Your task to perform on an android device: turn on the 24-hour format for clock Image 0: 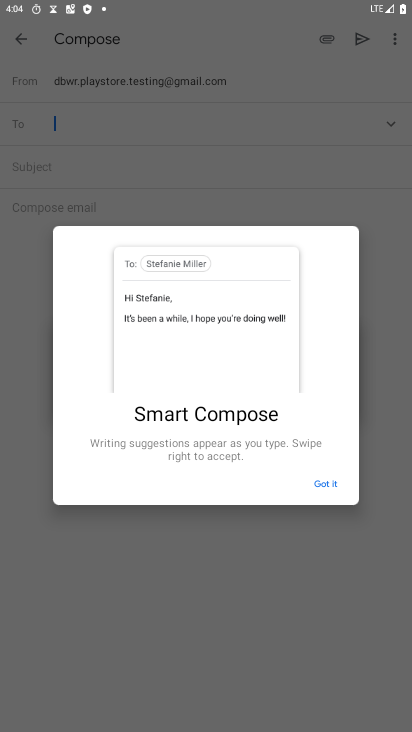
Step 0: press home button
Your task to perform on an android device: turn on the 24-hour format for clock Image 1: 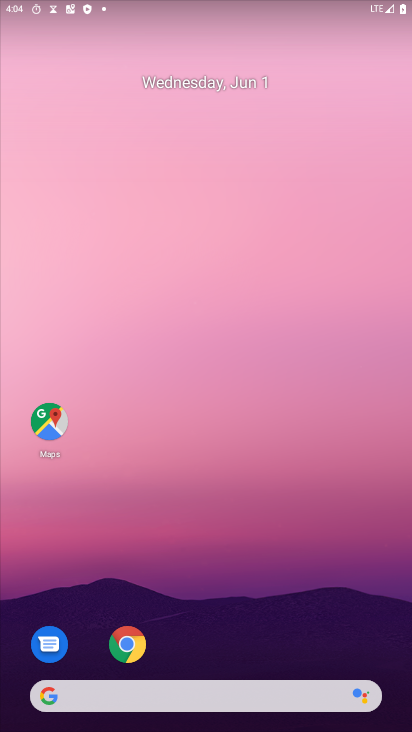
Step 1: drag from (346, 326) to (370, 138)
Your task to perform on an android device: turn on the 24-hour format for clock Image 2: 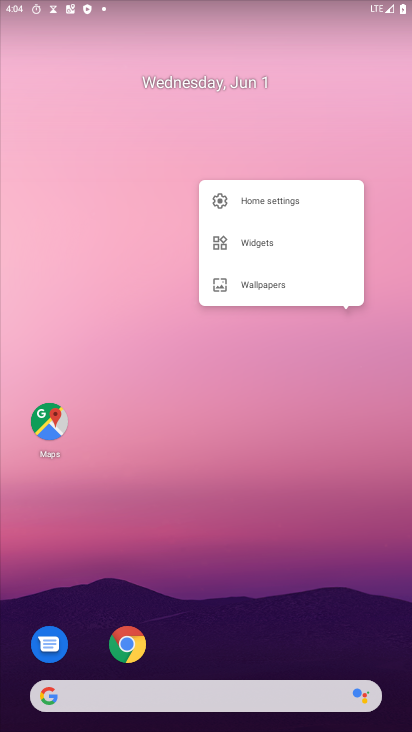
Step 2: drag from (265, 596) to (293, 76)
Your task to perform on an android device: turn on the 24-hour format for clock Image 3: 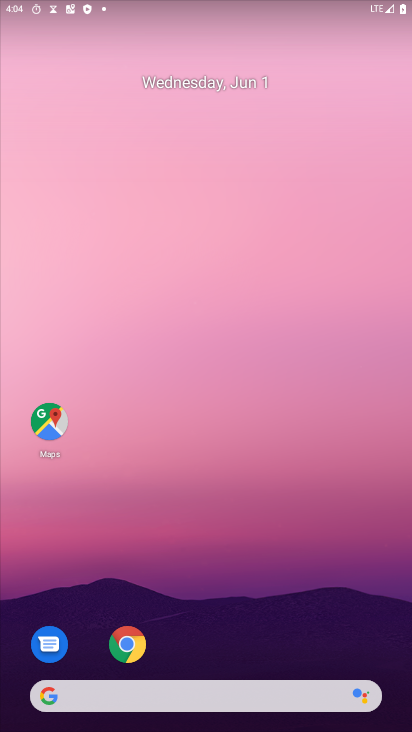
Step 3: drag from (240, 593) to (230, 58)
Your task to perform on an android device: turn on the 24-hour format for clock Image 4: 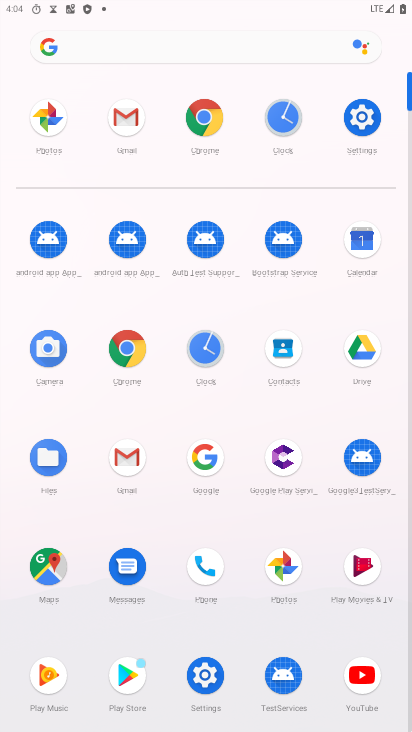
Step 4: click (282, 121)
Your task to perform on an android device: turn on the 24-hour format for clock Image 5: 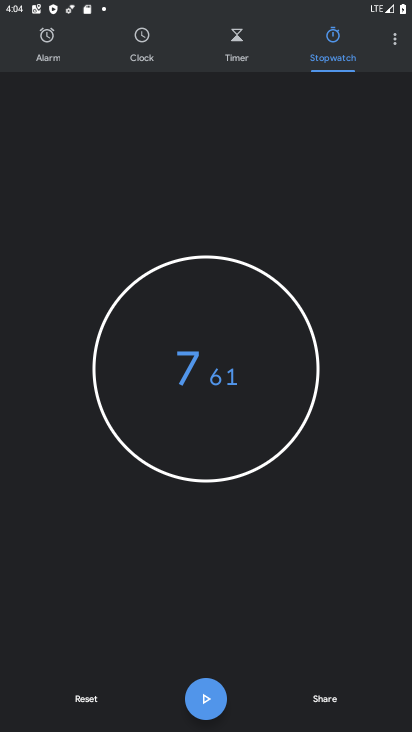
Step 5: click (393, 37)
Your task to perform on an android device: turn on the 24-hour format for clock Image 6: 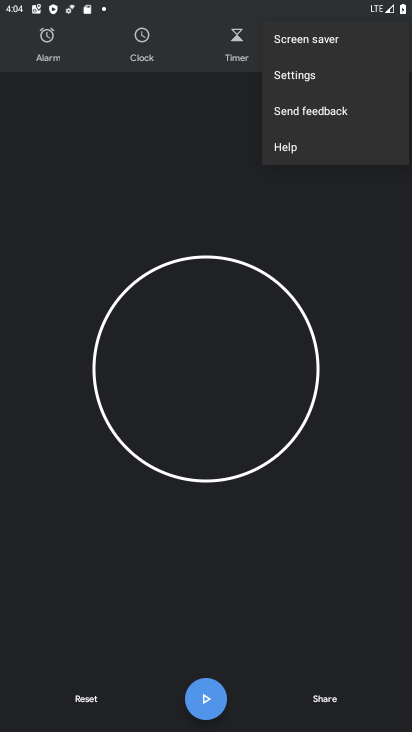
Step 6: click (303, 71)
Your task to perform on an android device: turn on the 24-hour format for clock Image 7: 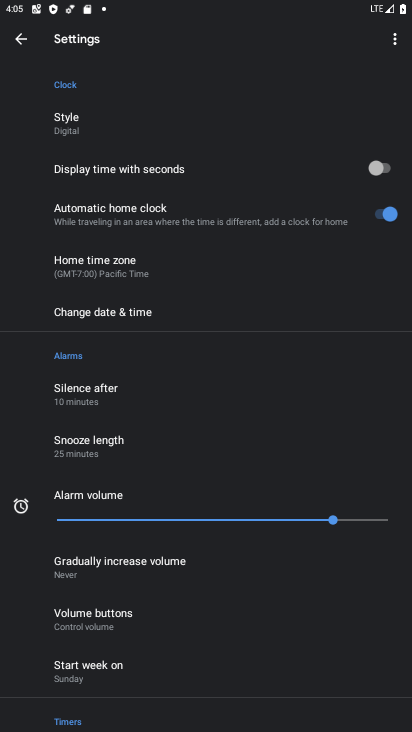
Step 7: click (129, 318)
Your task to perform on an android device: turn on the 24-hour format for clock Image 8: 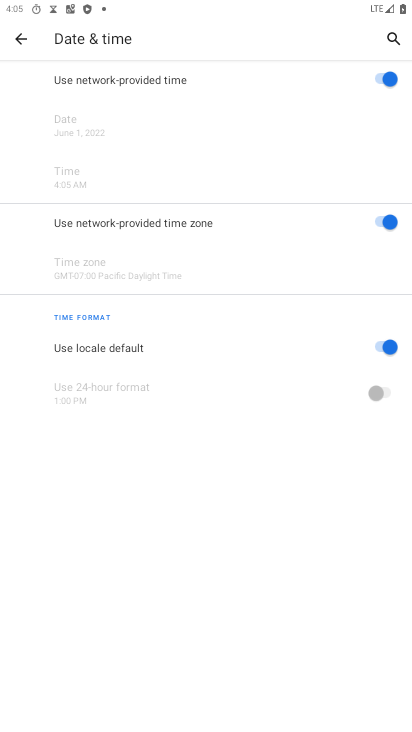
Step 8: click (375, 390)
Your task to perform on an android device: turn on the 24-hour format for clock Image 9: 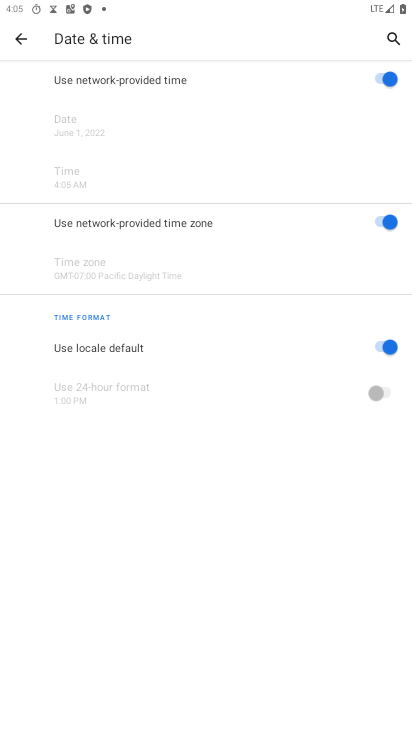
Step 9: click (383, 390)
Your task to perform on an android device: turn on the 24-hour format for clock Image 10: 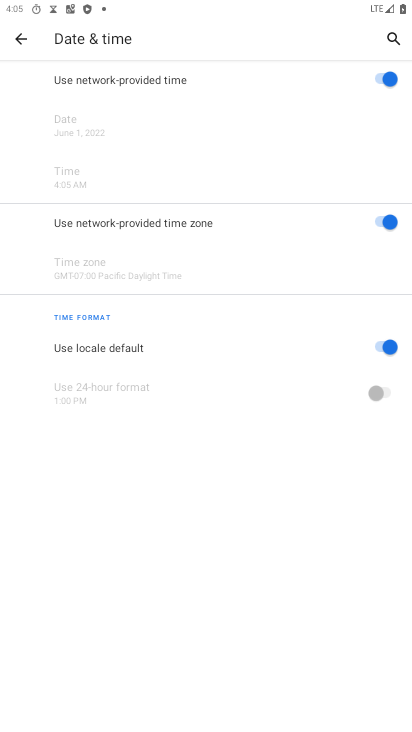
Step 10: click (390, 341)
Your task to perform on an android device: turn on the 24-hour format for clock Image 11: 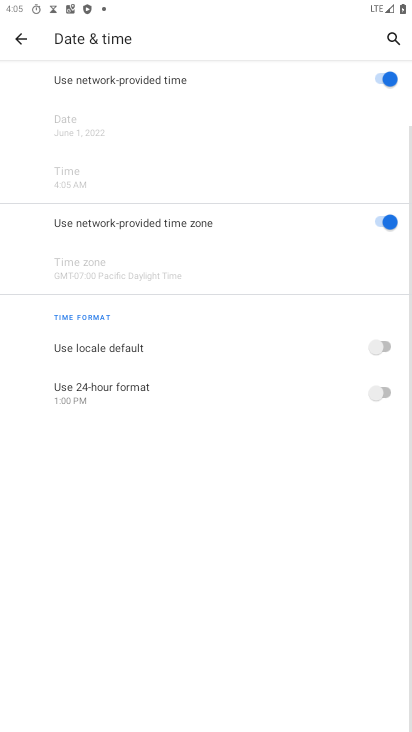
Step 11: click (394, 393)
Your task to perform on an android device: turn on the 24-hour format for clock Image 12: 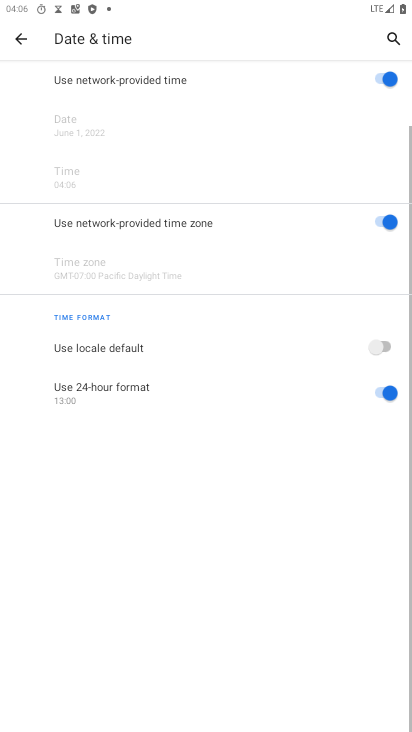
Step 12: task complete